Your task to perform on an android device: turn off location history Image 0: 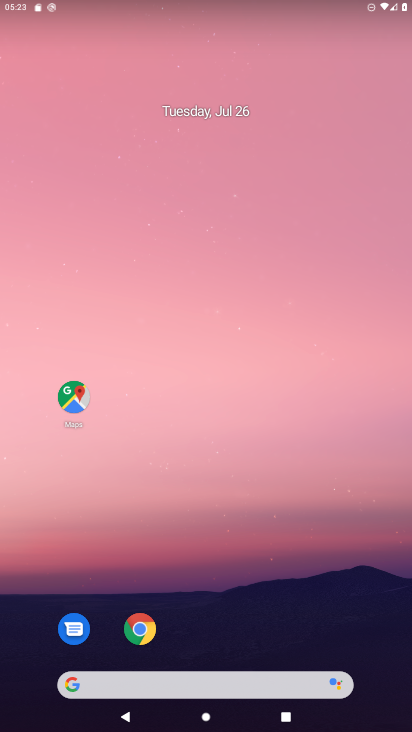
Step 0: drag from (201, 487) to (209, 136)
Your task to perform on an android device: turn off location history Image 1: 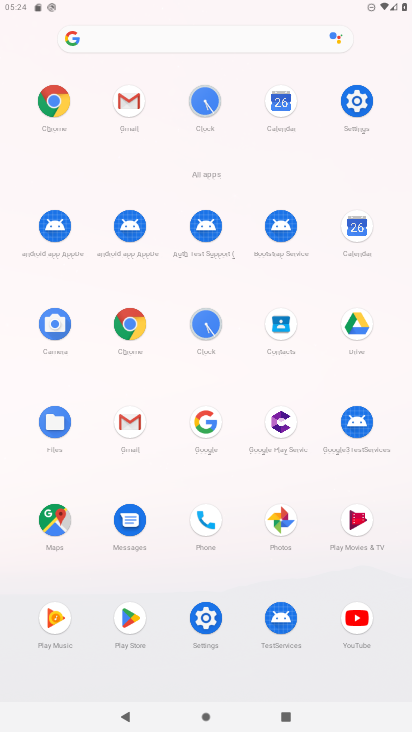
Step 1: click (355, 105)
Your task to perform on an android device: turn off location history Image 2: 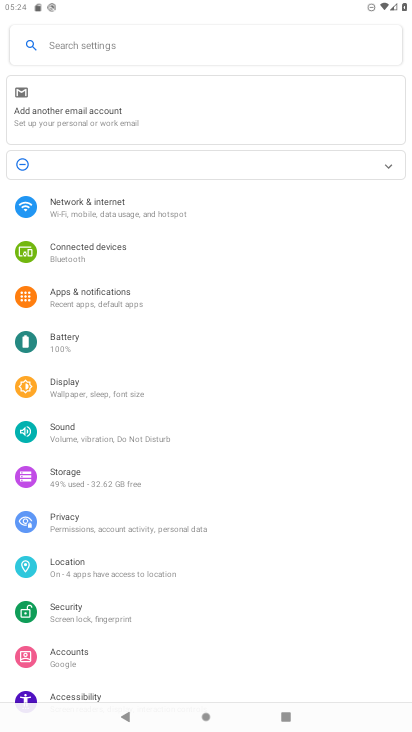
Step 2: click (101, 575)
Your task to perform on an android device: turn off location history Image 3: 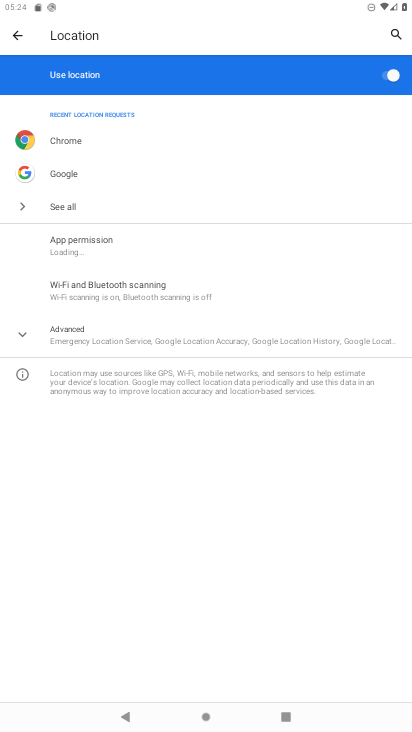
Step 3: click (102, 335)
Your task to perform on an android device: turn off location history Image 4: 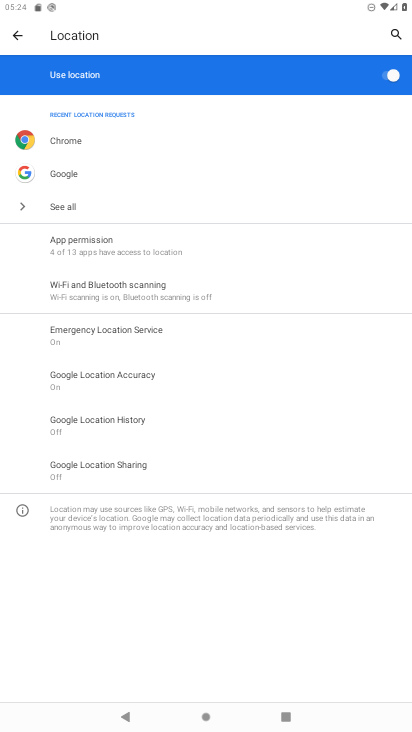
Step 4: click (95, 423)
Your task to perform on an android device: turn off location history Image 5: 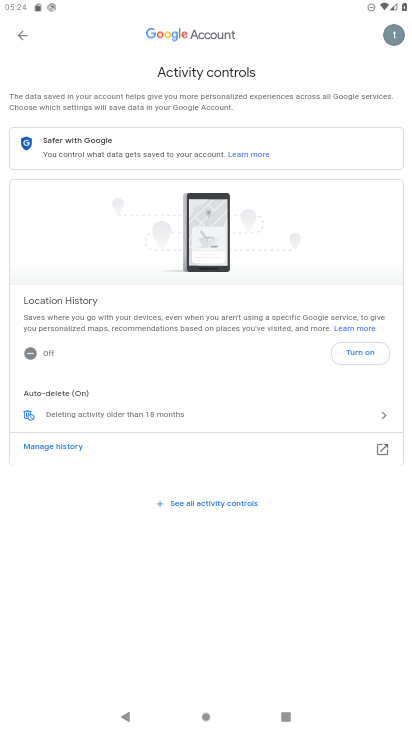
Step 5: task complete